Your task to perform on an android device: Open the stopwatch Image 0: 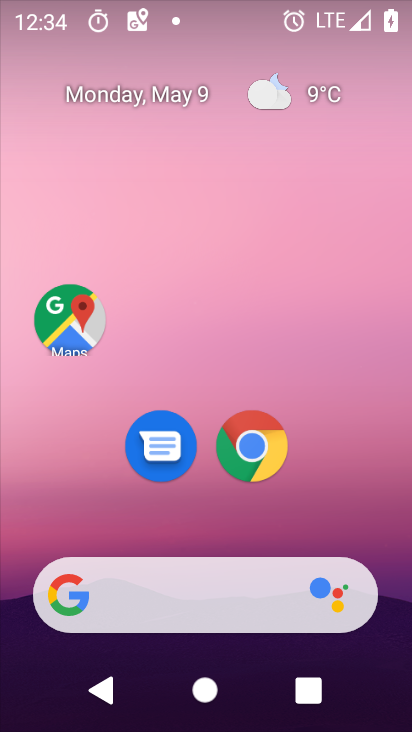
Step 0: drag from (363, 542) to (327, 2)
Your task to perform on an android device: Open the stopwatch Image 1: 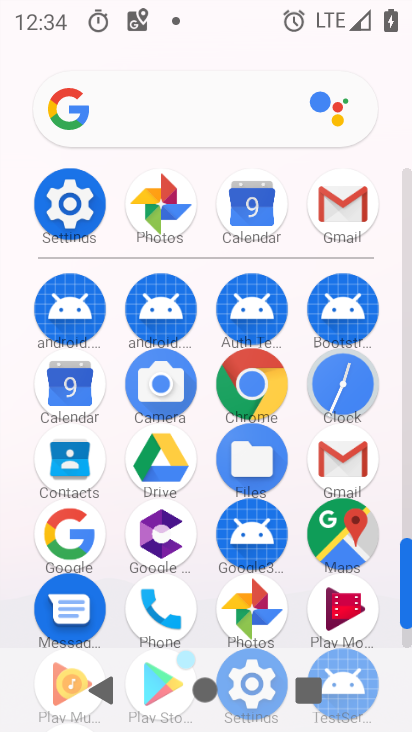
Step 1: click (334, 383)
Your task to perform on an android device: Open the stopwatch Image 2: 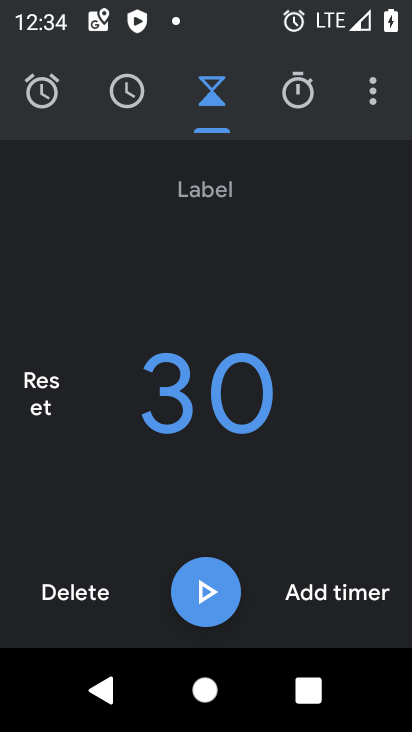
Step 2: click (304, 105)
Your task to perform on an android device: Open the stopwatch Image 3: 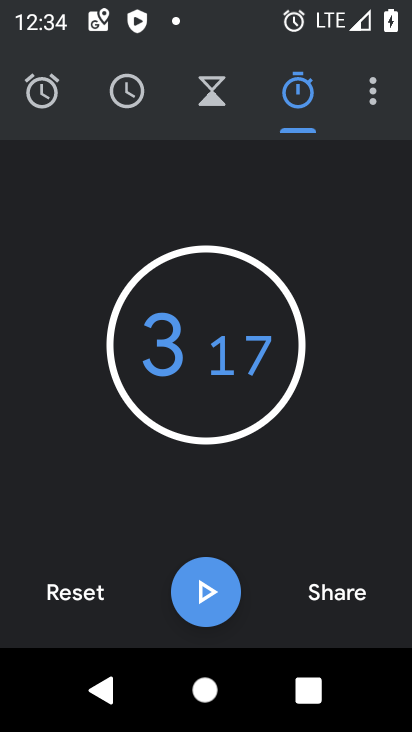
Step 3: task complete